Your task to perform on an android device: Search for the new Apple Watch on Best Buy Image 0: 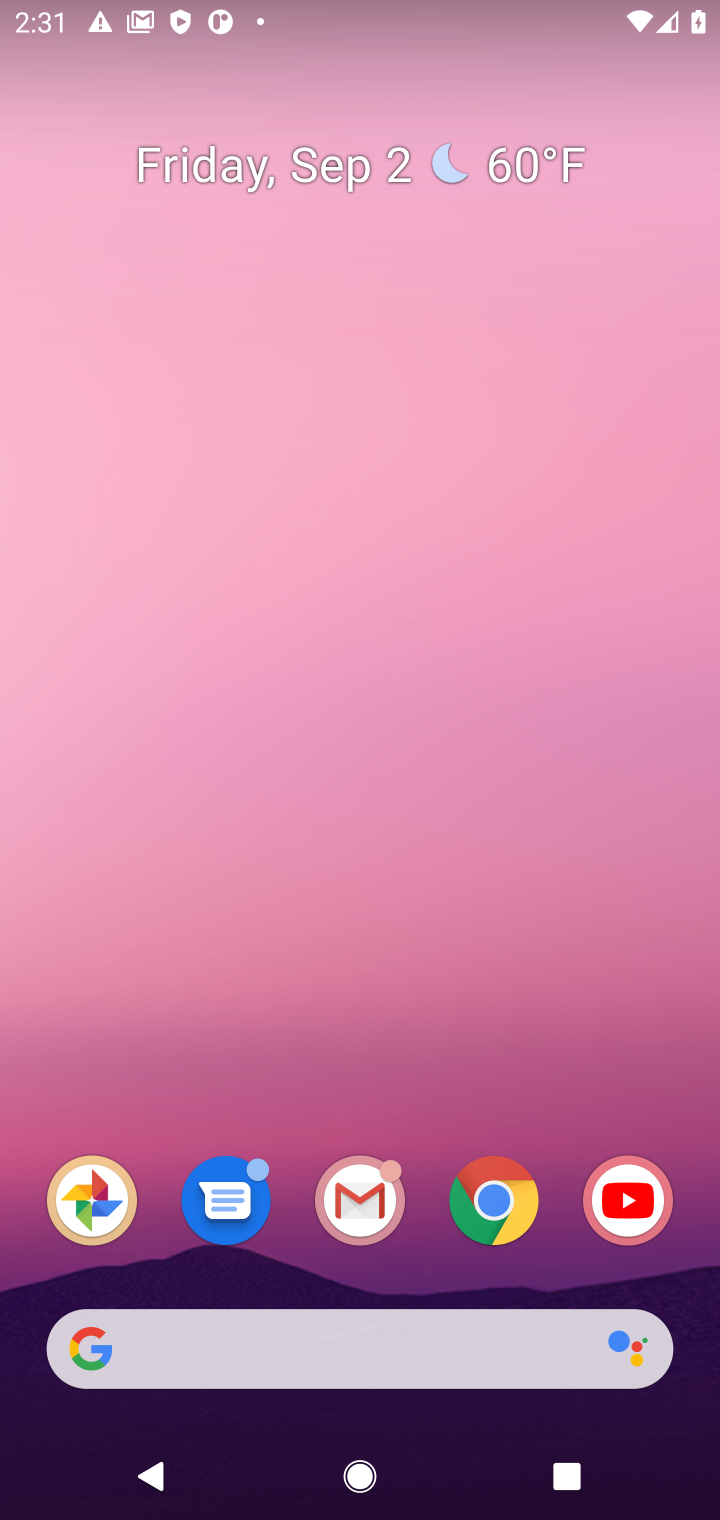
Step 0: click (498, 1216)
Your task to perform on an android device: Search for the new Apple Watch on Best Buy Image 1: 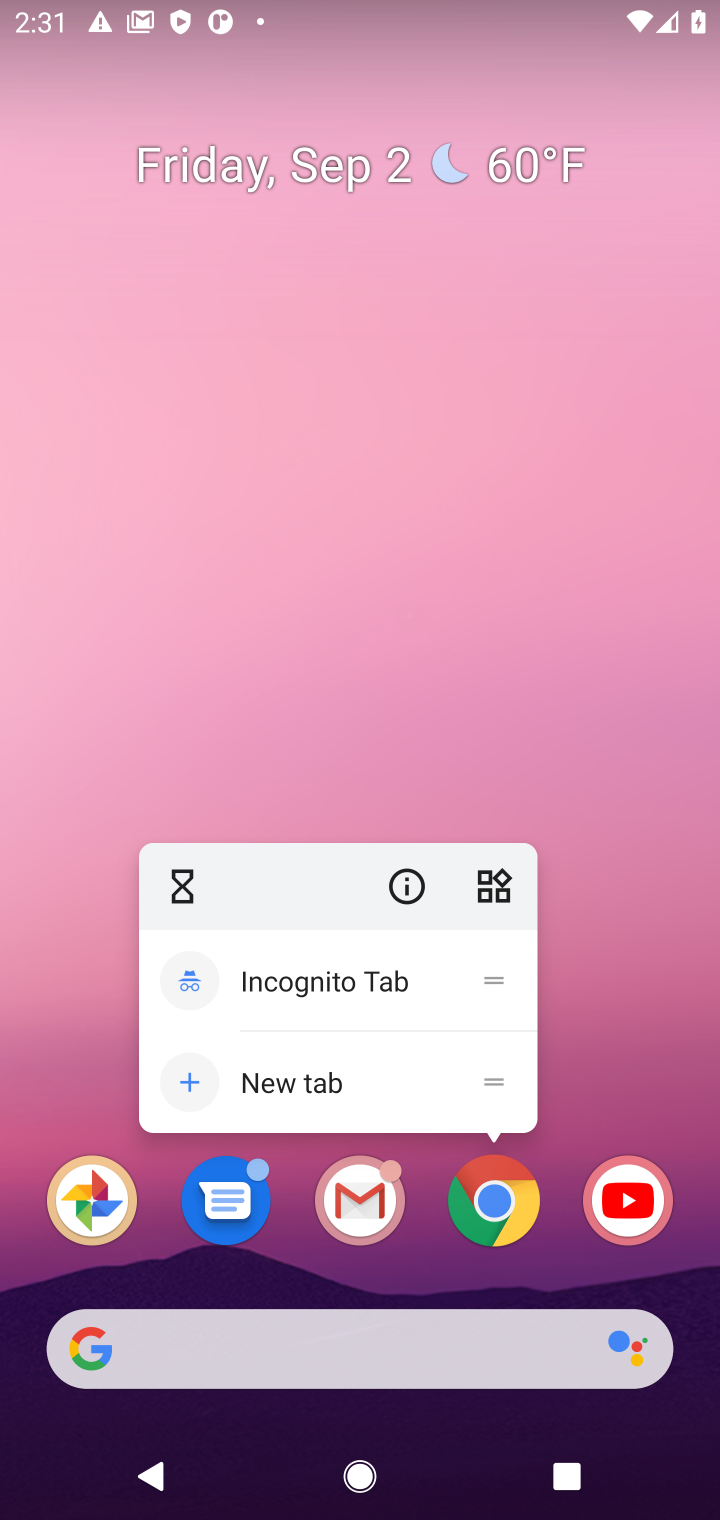
Step 1: click (498, 1216)
Your task to perform on an android device: Search for the new Apple Watch on Best Buy Image 2: 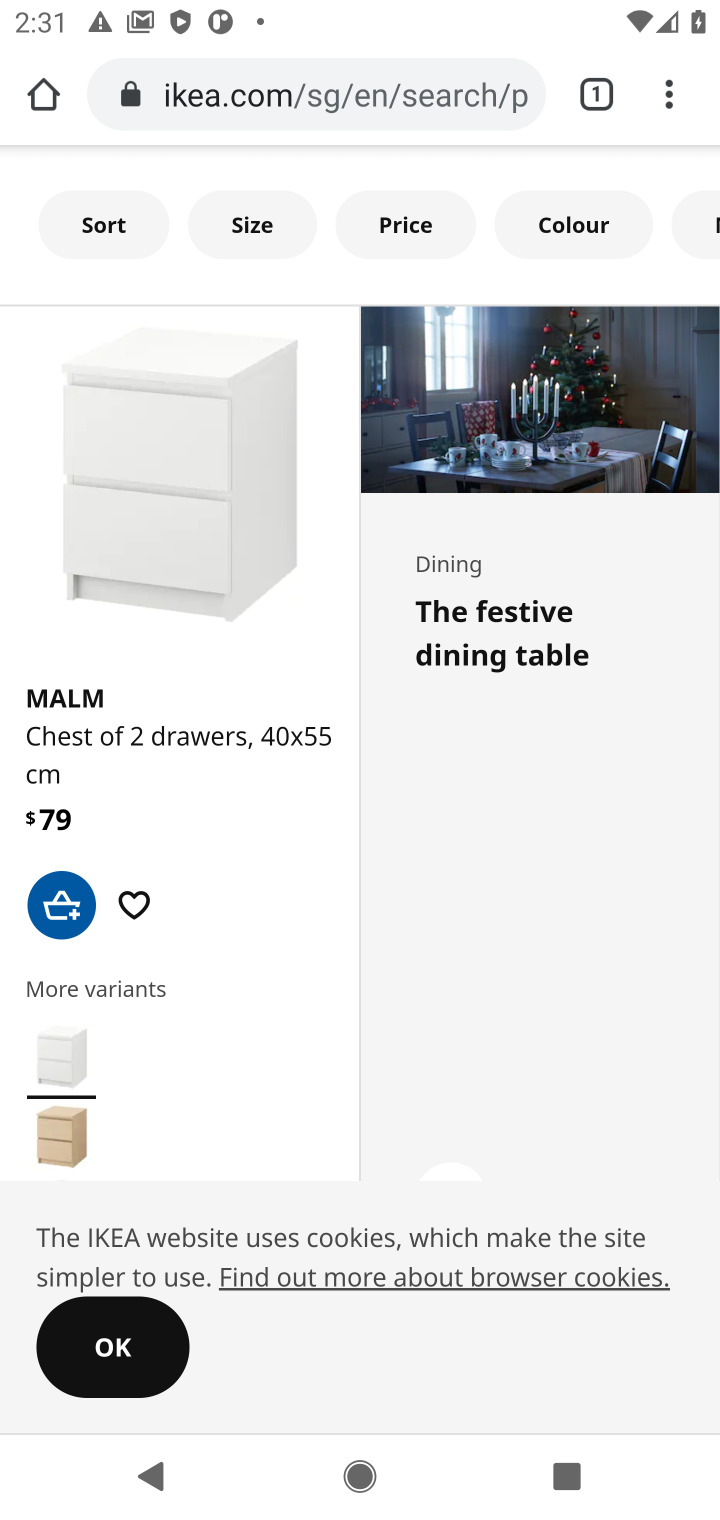
Step 2: click (409, 81)
Your task to perform on an android device: Search for the new Apple Watch on Best Buy Image 3: 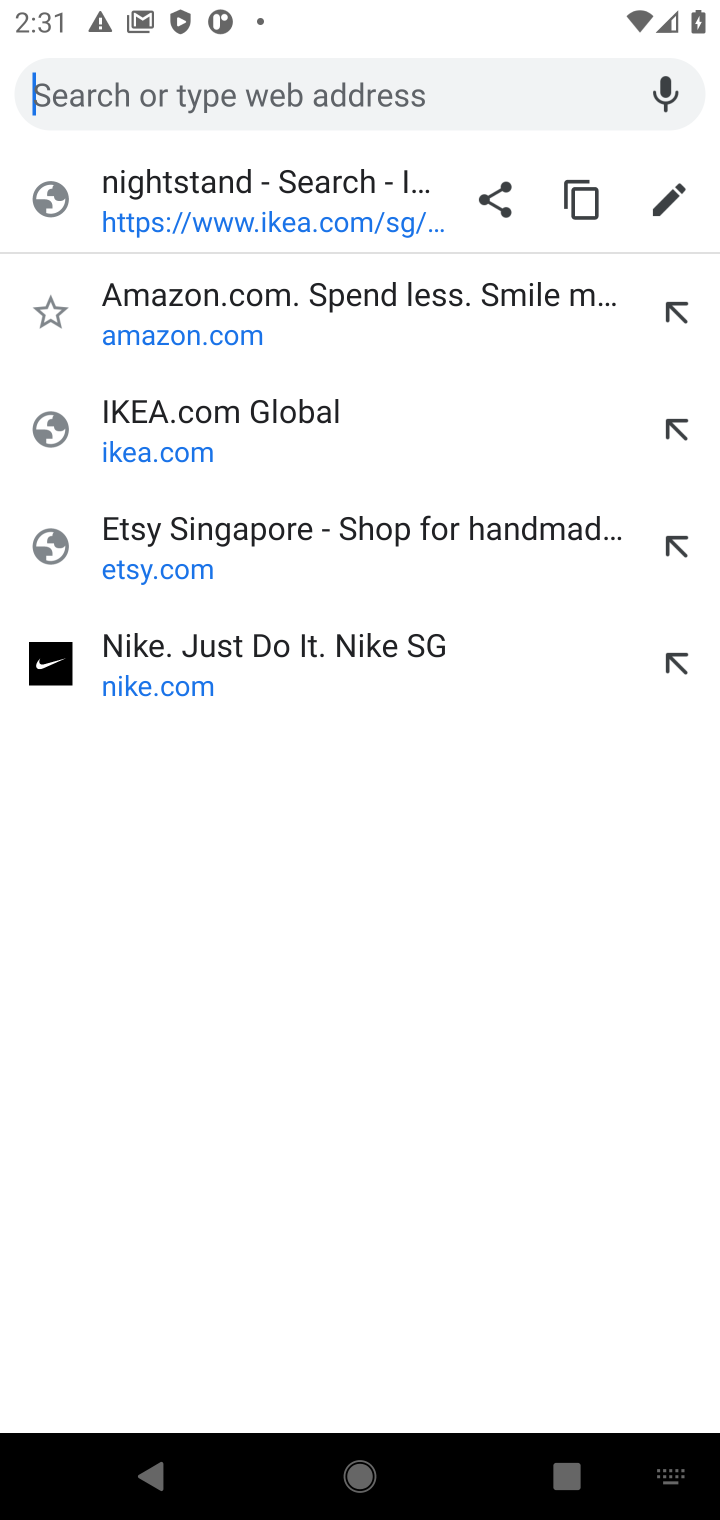
Step 3: type " Best Buy"
Your task to perform on an android device: Search for the new Apple Watch on Best Buy Image 4: 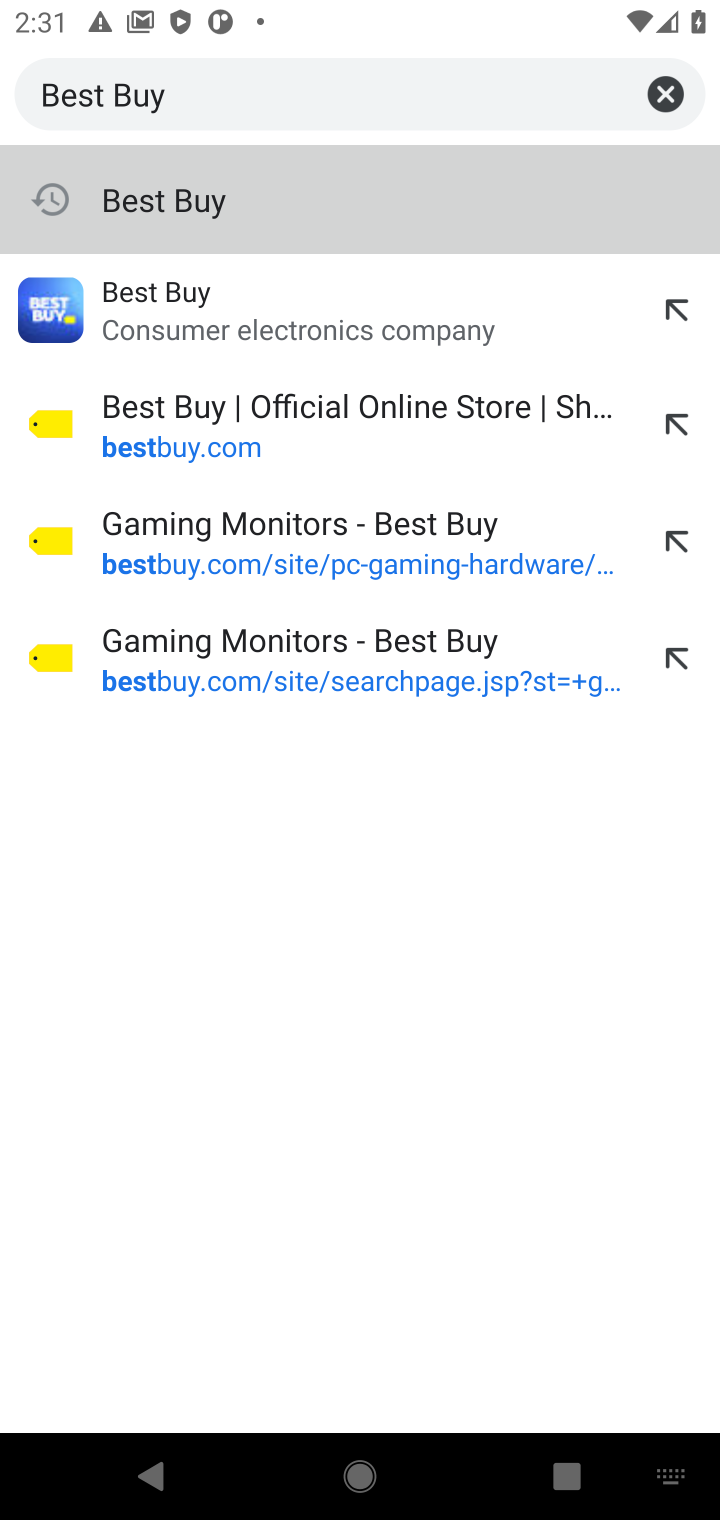
Step 4: press enter
Your task to perform on an android device: Search for the new Apple Watch on Best Buy Image 5: 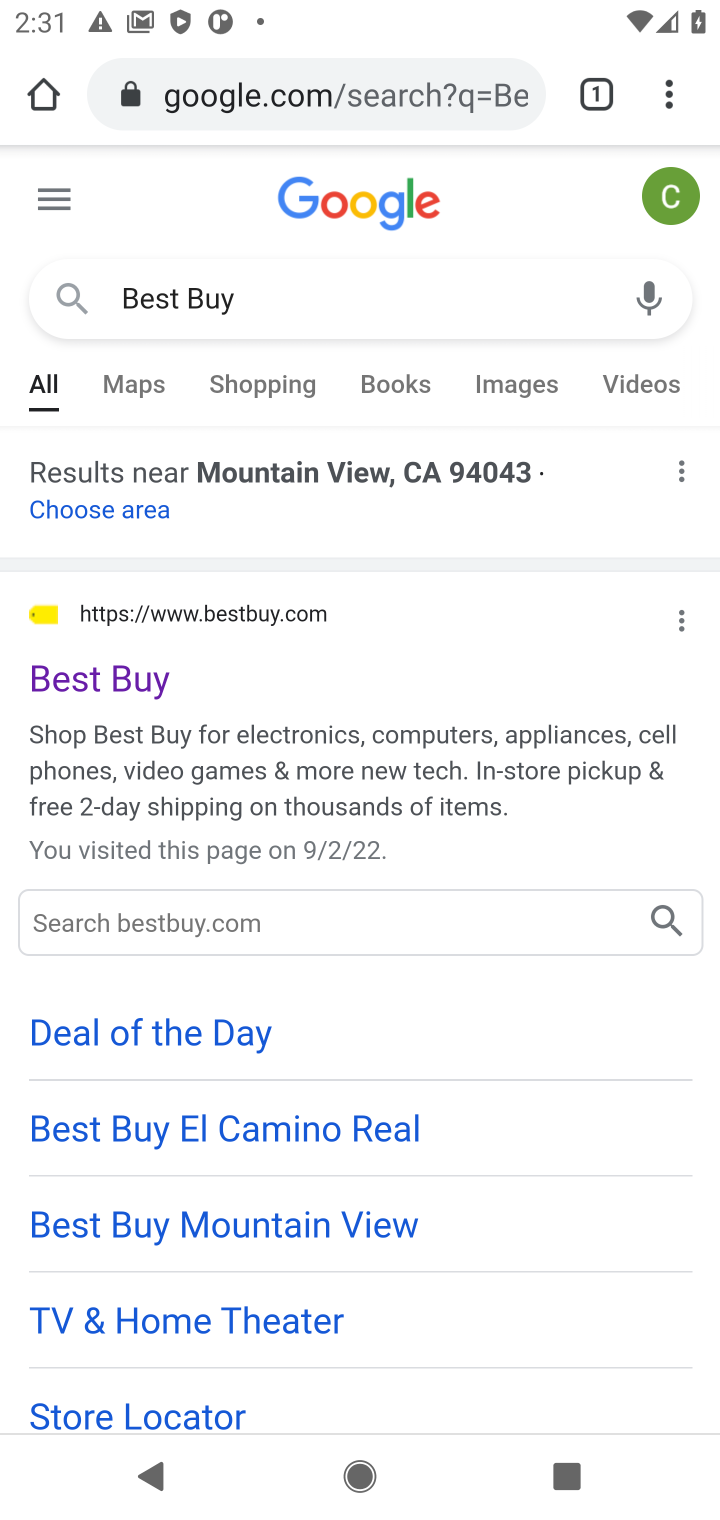
Step 5: click (140, 673)
Your task to perform on an android device: Search for the new Apple Watch on Best Buy Image 6: 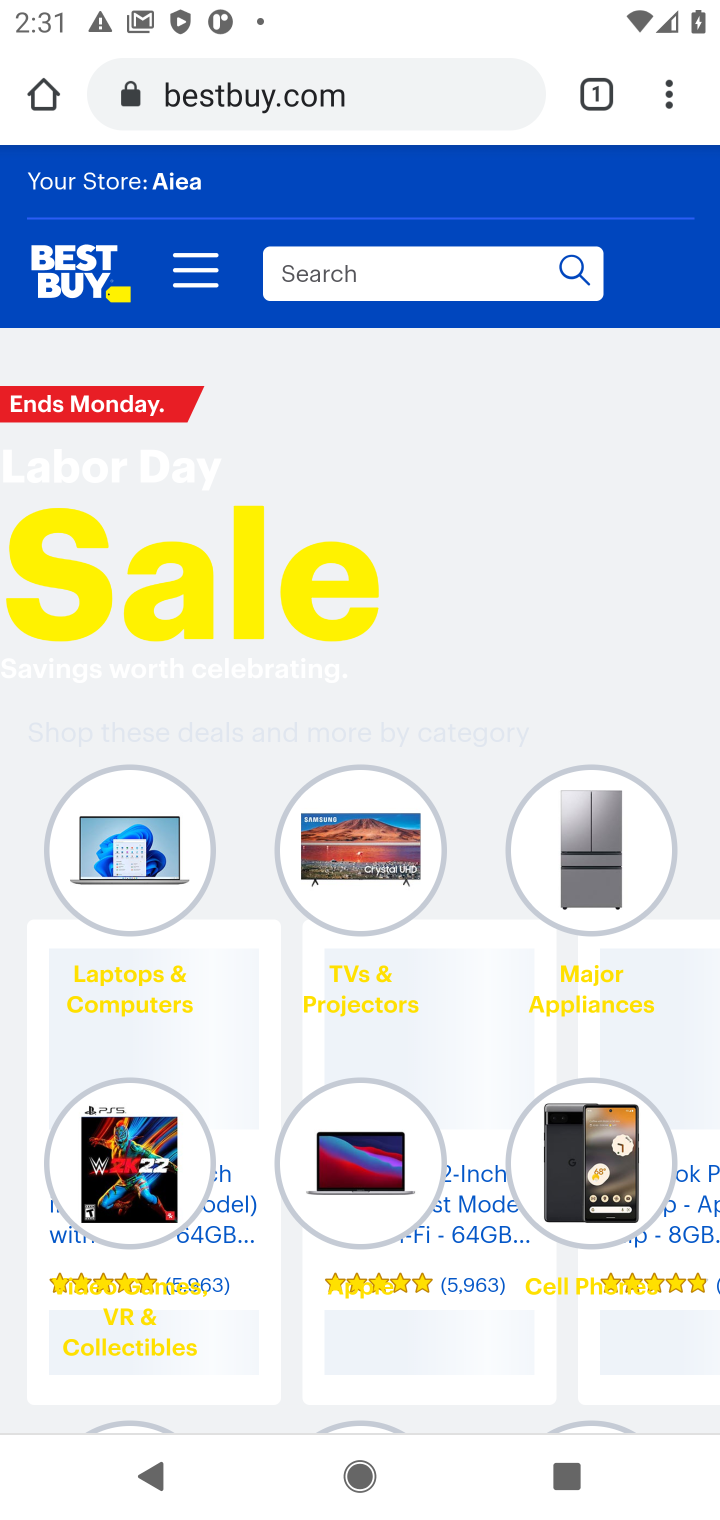
Step 6: click (505, 264)
Your task to perform on an android device: Search for the new Apple Watch on Best Buy Image 7: 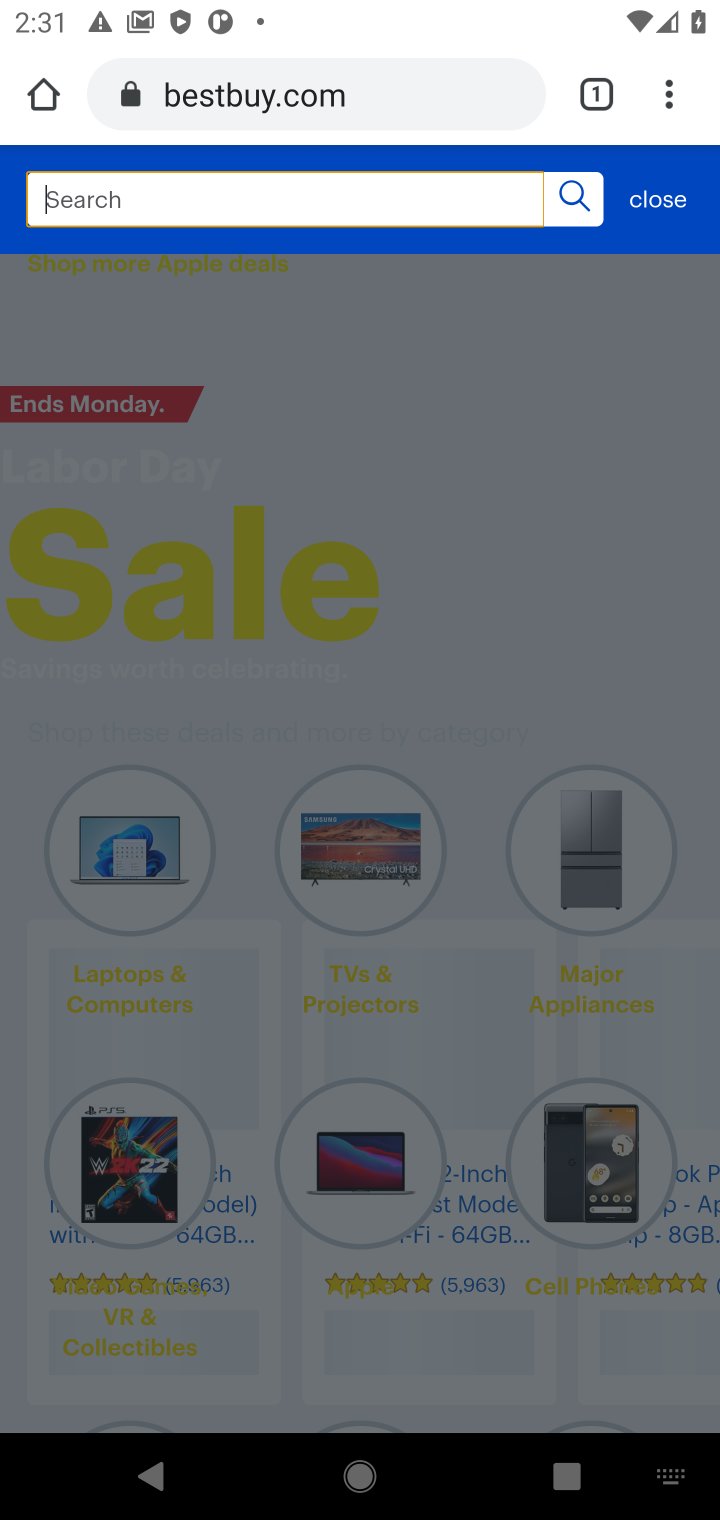
Step 7: click (201, 190)
Your task to perform on an android device: Search for the new Apple Watch on Best Buy Image 8: 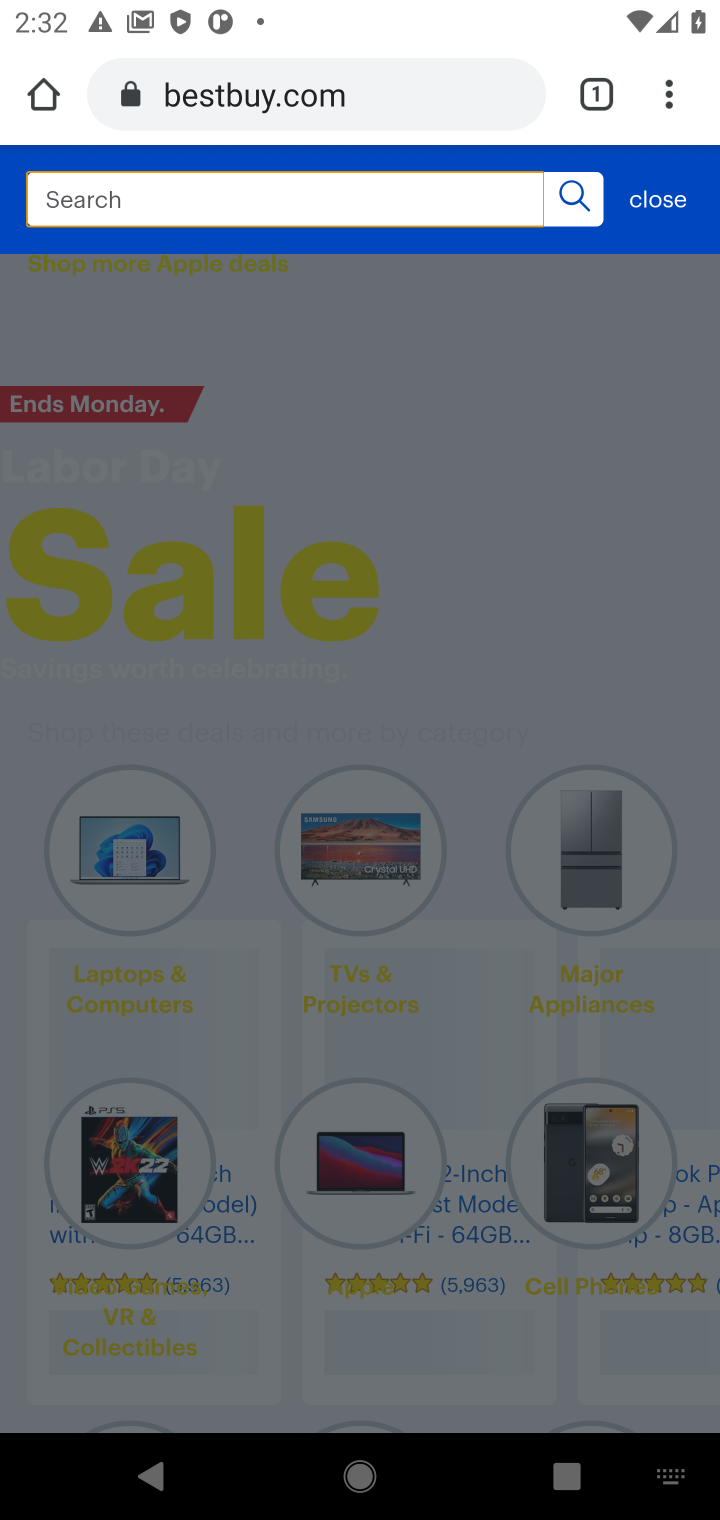
Step 8: type " Apple Watch"
Your task to perform on an android device: Search for the new Apple Watch on Best Buy Image 9: 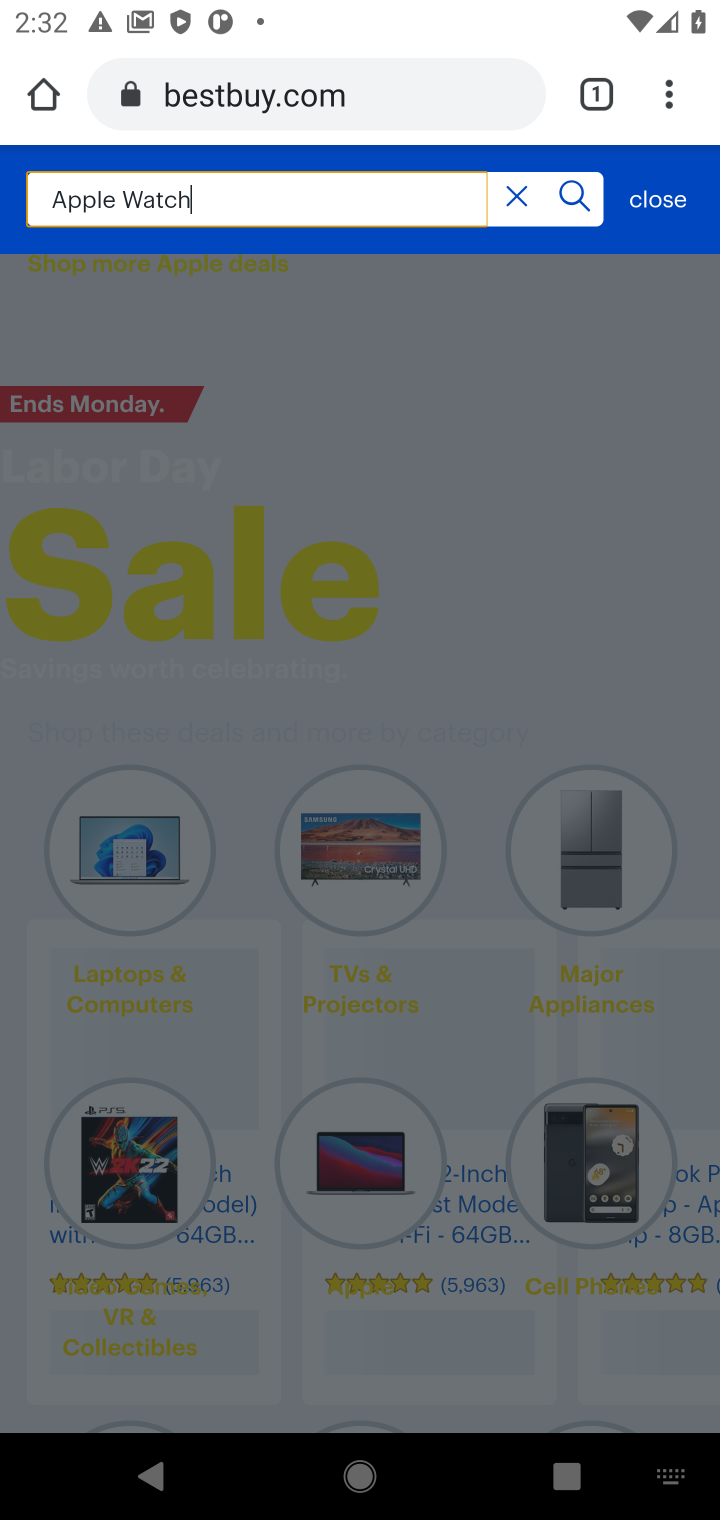
Step 9: press enter
Your task to perform on an android device: Search for the new Apple Watch on Best Buy Image 10: 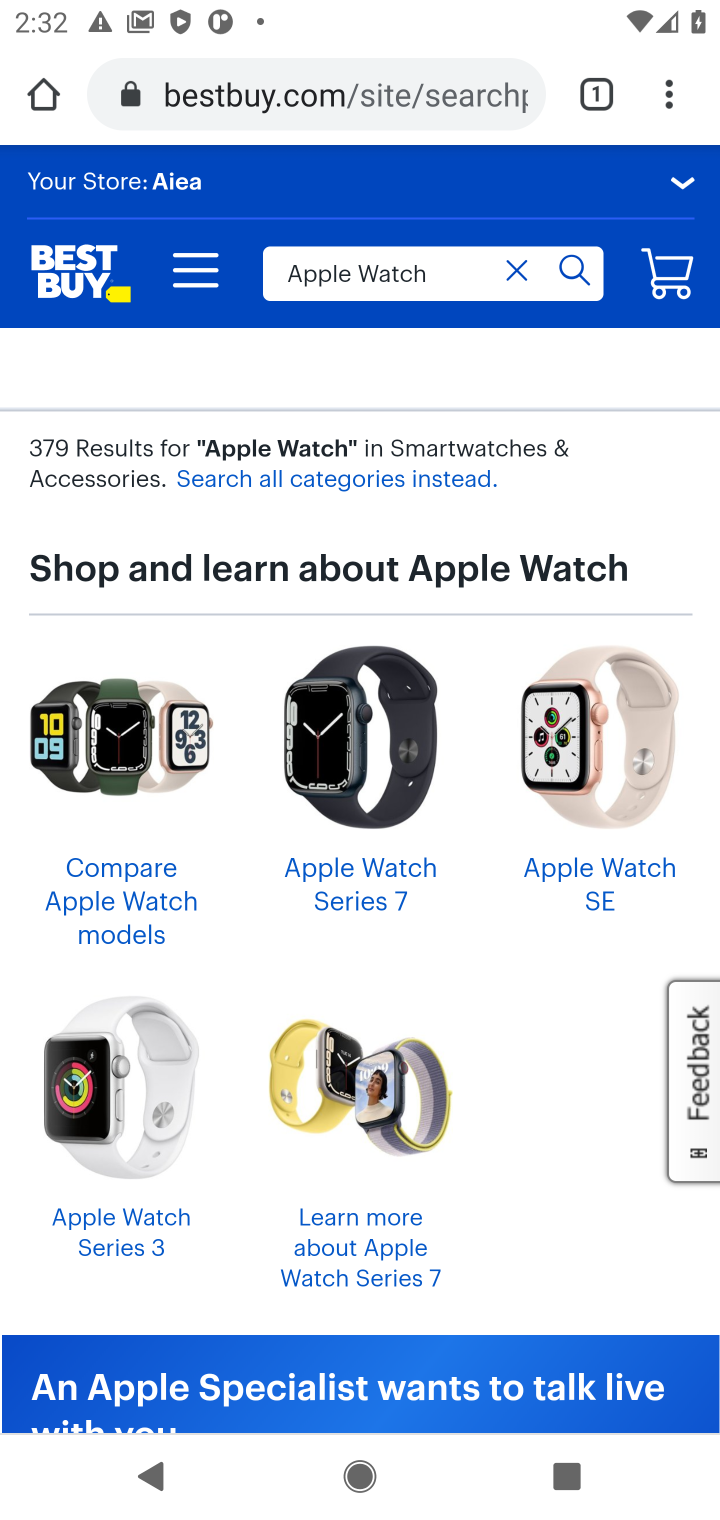
Step 10: task complete